Your task to perform on an android device: Go to Android settings Image 0: 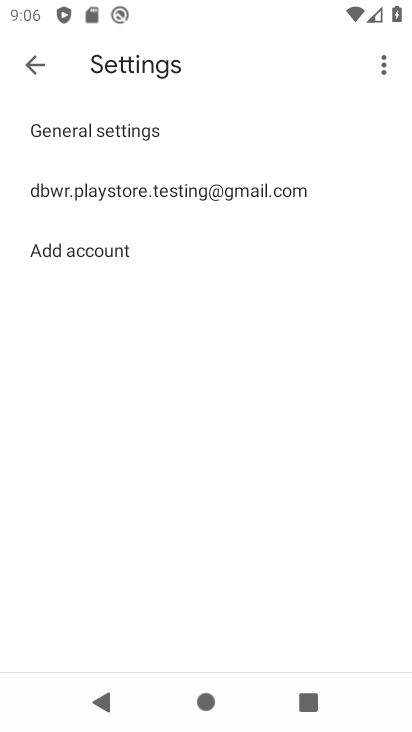
Step 0: press home button
Your task to perform on an android device: Go to Android settings Image 1: 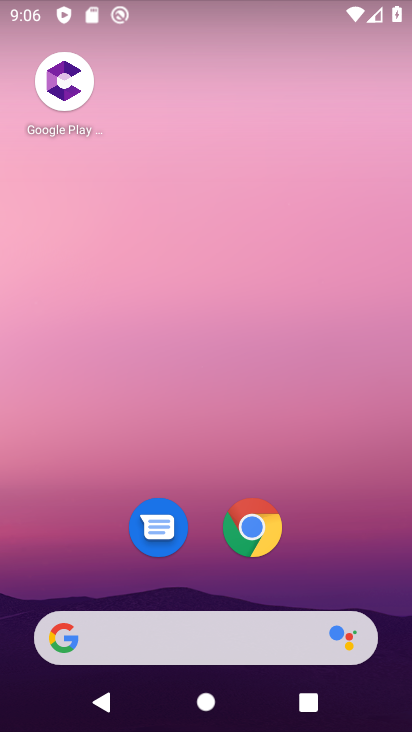
Step 1: drag from (181, 645) to (340, 114)
Your task to perform on an android device: Go to Android settings Image 2: 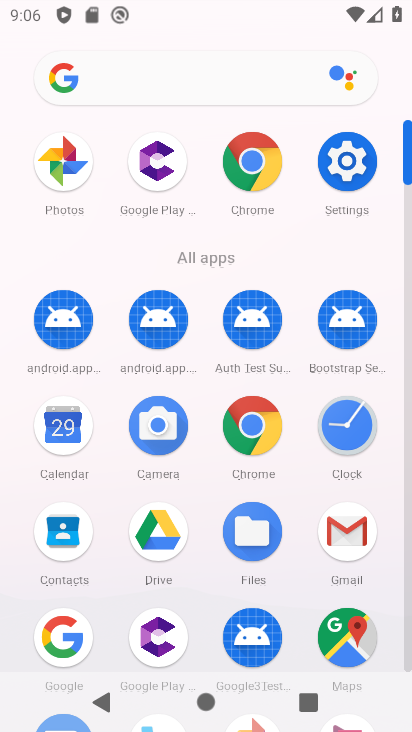
Step 2: click (345, 162)
Your task to perform on an android device: Go to Android settings Image 3: 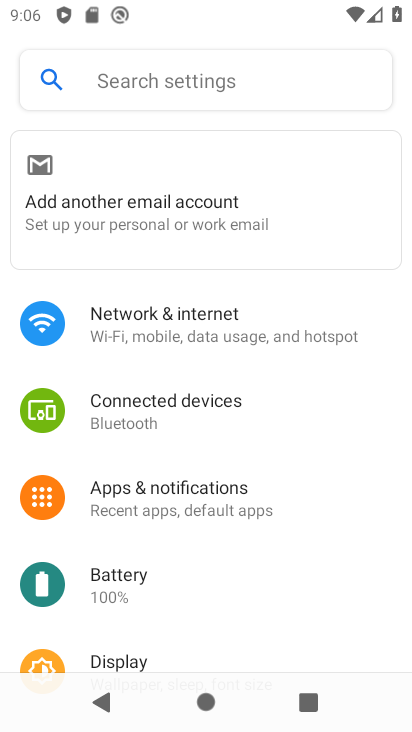
Step 3: task complete